Your task to perform on an android device: Open accessibility settings Image 0: 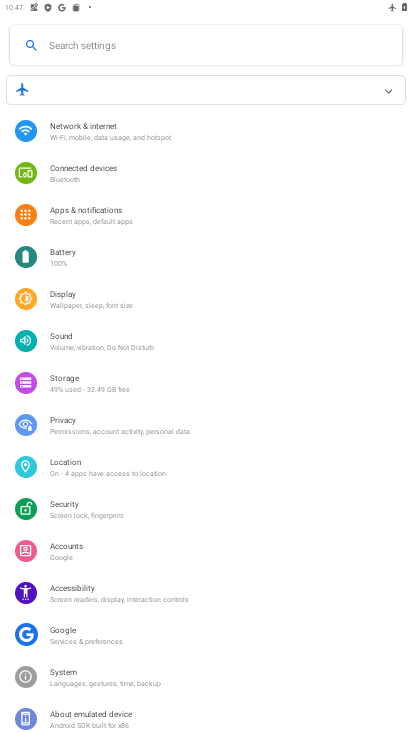
Step 0: press home button
Your task to perform on an android device: Open accessibility settings Image 1: 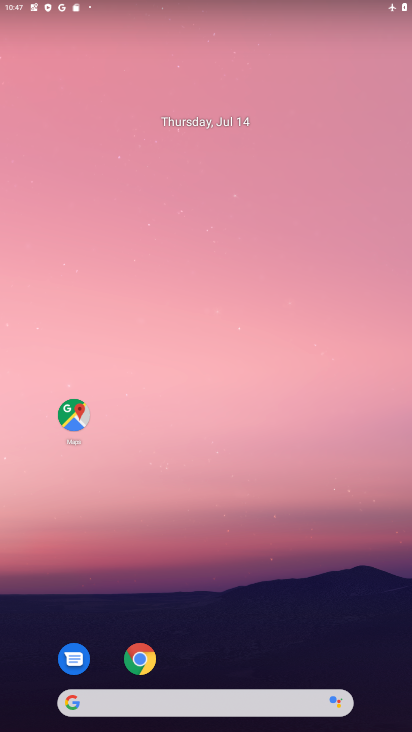
Step 1: drag from (358, 575) to (267, 190)
Your task to perform on an android device: Open accessibility settings Image 2: 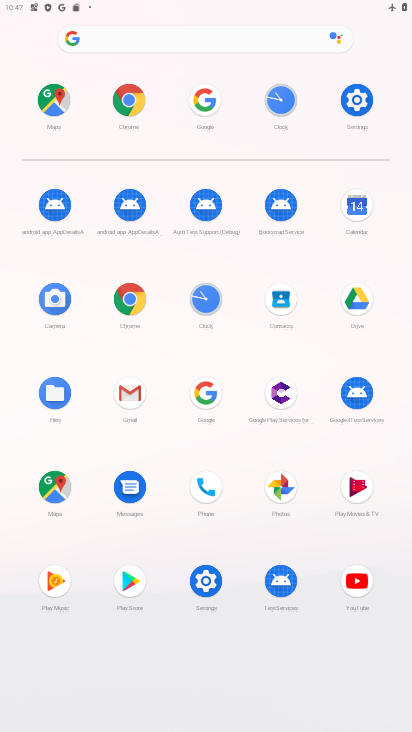
Step 2: click (353, 90)
Your task to perform on an android device: Open accessibility settings Image 3: 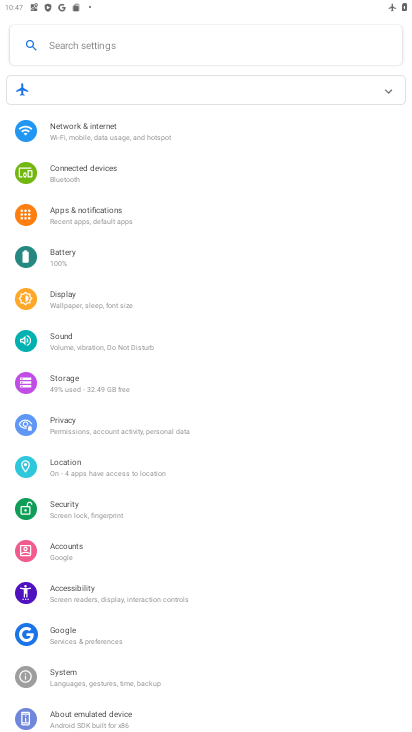
Step 3: click (61, 586)
Your task to perform on an android device: Open accessibility settings Image 4: 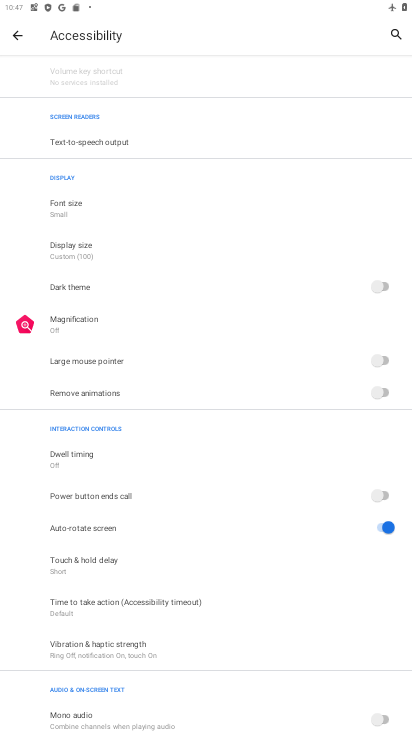
Step 4: task complete